Your task to perform on an android device: toggle notifications settings in the gmail app Image 0: 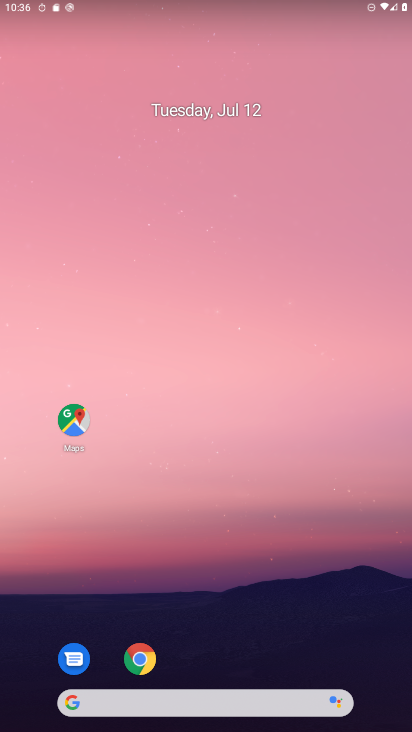
Step 0: drag from (337, 725) to (223, 714)
Your task to perform on an android device: toggle notifications settings in the gmail app Image 1: 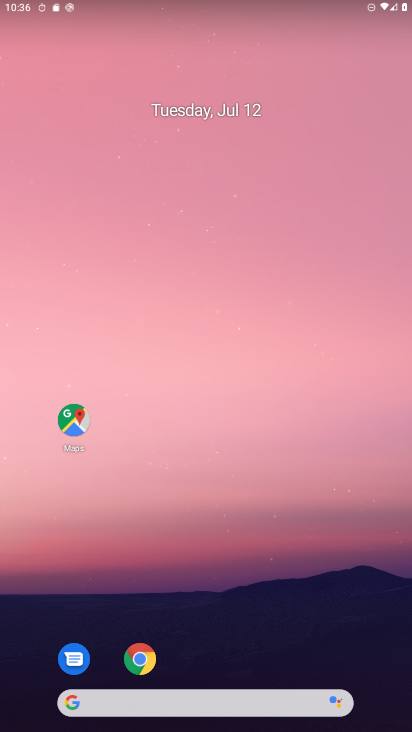
Step 1: drag from (211, 364) to (211, 144)
Your task to perform on an android device: toggle notifications settings in the gmail app Image 2: 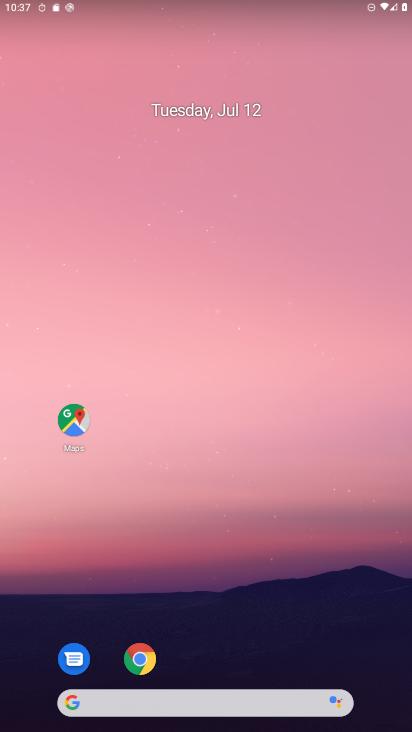
Step 2: drag from (215, 731) to (185, 139)
Your task to perform on an android device: toggle notifications settings in the gmail app Image 3: 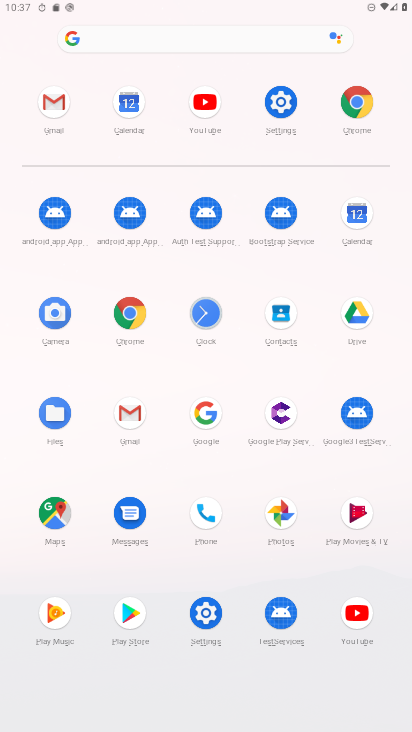
Step 3: click (122, 409)
Your task to perform on an android device: toggle notifications settings in the gmail app Image 4: 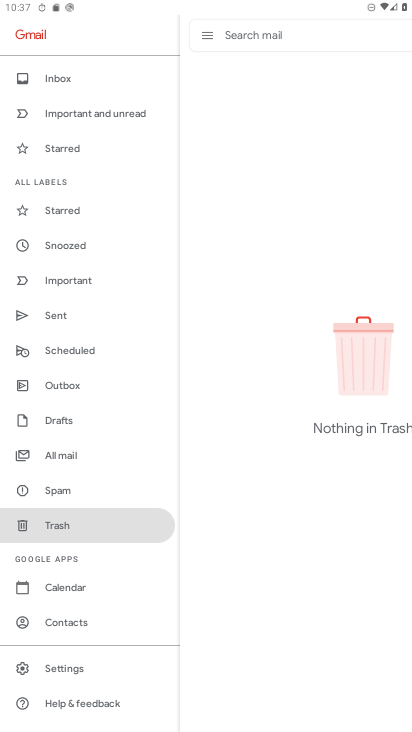
Step 4: click (60, 664)
Your task to perform on an android device: toggle notifications settings in the gmail app Image 5: 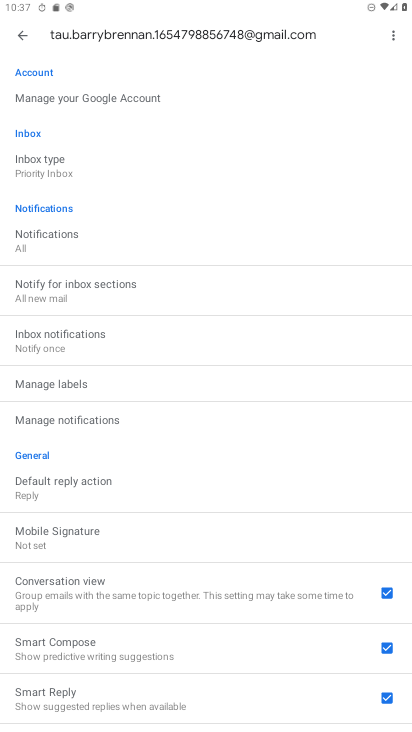
Step 5: click (42, 236)
Your task to perform on an android device: toggle notifications settings in the gmail app Image 6: 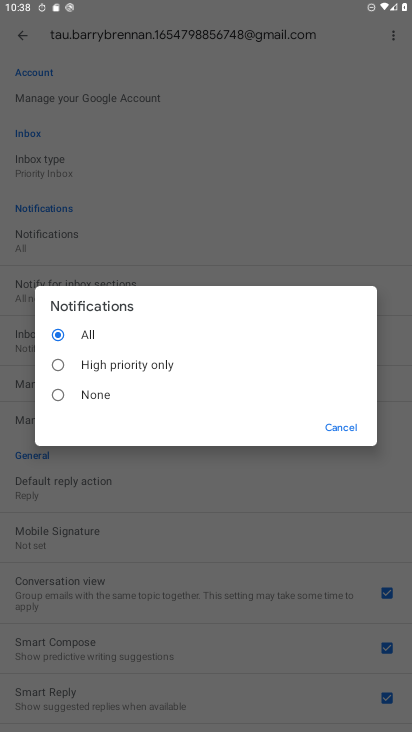
Step 6: click (59, 392)
Your task to perform on an android device: toggle notifications settings in the gmail app Image 7: 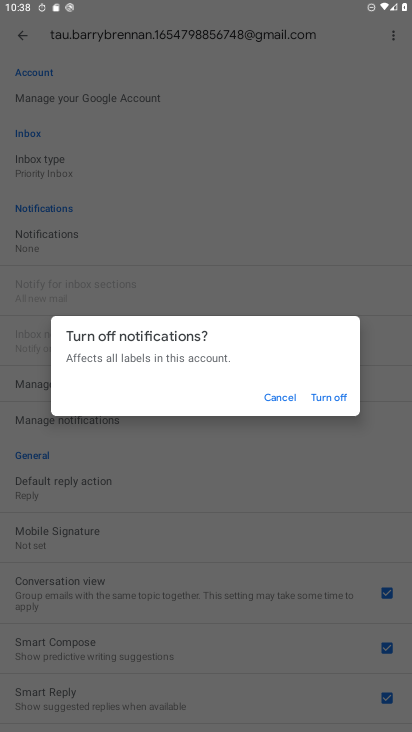
Step 7: click (337, 400)
Your task to perform on an android device: toggle notifications settings in the gmail app Image 8: 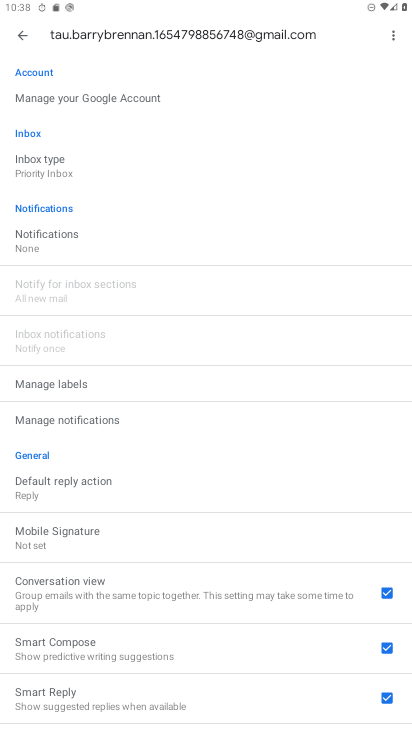
Step 8: task complete